Your task to perform on an android device: Play the last video I watched on Youtube Image 0: 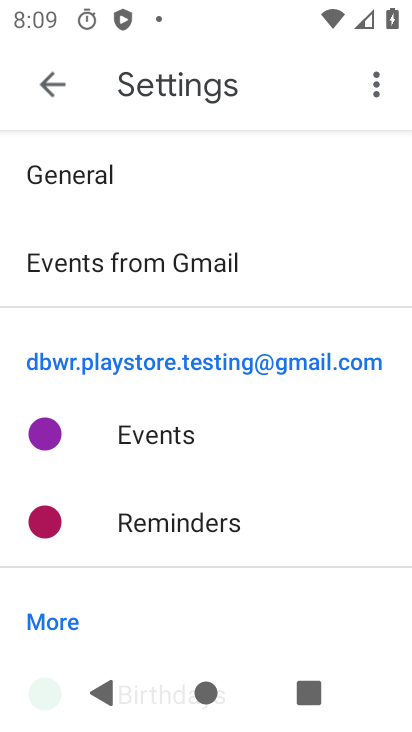
Step 0: press home button
Your task to perform on an android device: Play the last video I watched on Youtube Image 1: 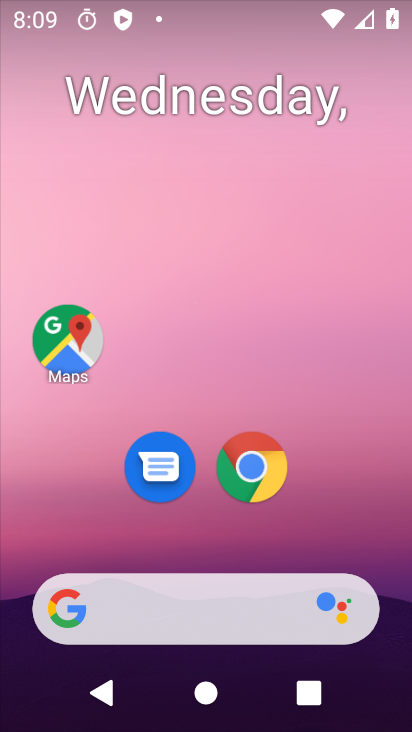
Step 1: drag from (369, 400) to (360, 115)
Your task to perform on an android device: Play the last video I watched on Youtube Image 2: 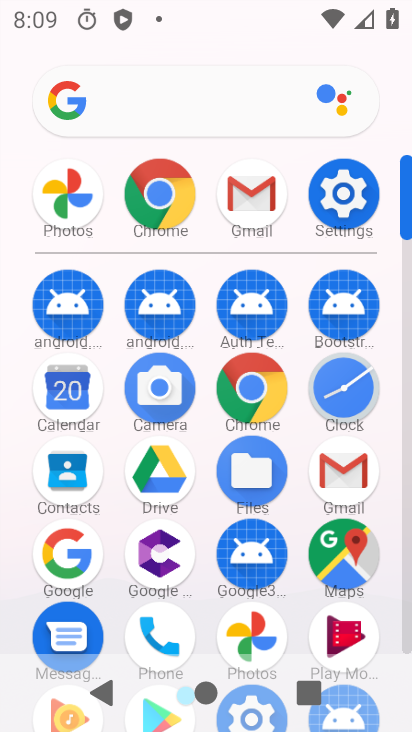
Step 2: drag from (393, 614) to (397, 305)
Your task to perform on an android device: Play the last video I watched on Youtube Image 3: 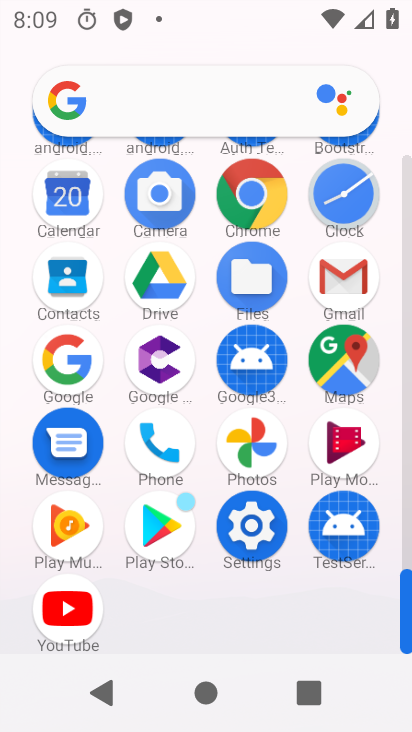
Step 3: click (58, 612)
Your task to perform on an android device: Play the last video I watched on Youtube Image 4: 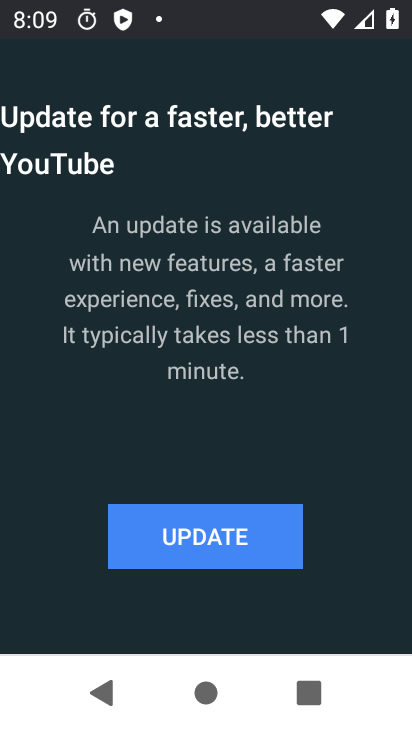
Step 4: click (218, 525)
Your task to perform on an android device: Play the last video I watched on Youtube Image 5: 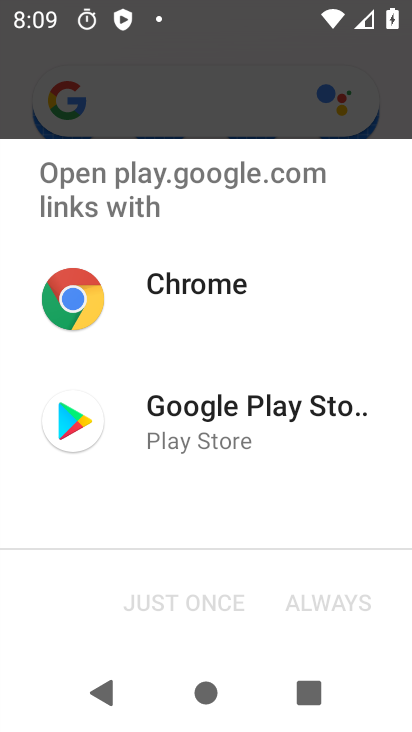
Step 5: click (164, 418)
Your task to perform on an android device: Play the last video I watched on Youtube Image 6: 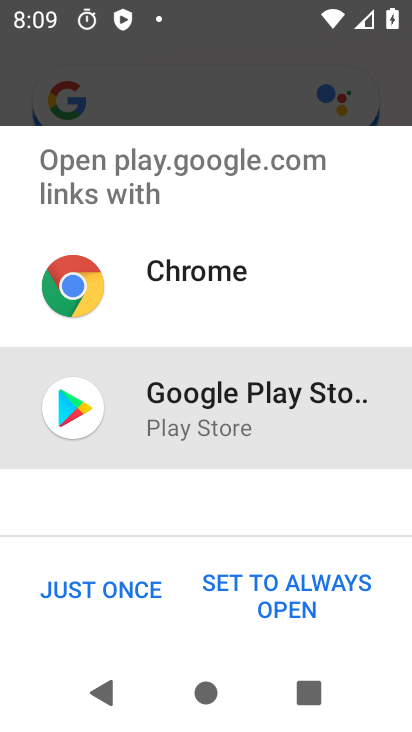
Step 6: click (112, 590)
Your task to perform on an android device: Play the last video I watched on Youtube Image 7: 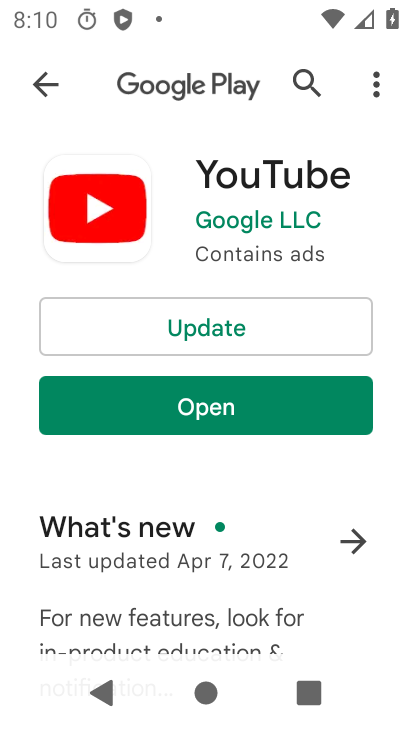
Step 7: click (203, 332)
Your task to perform on an android device: Play the last video I watched on Youtube Image 8: 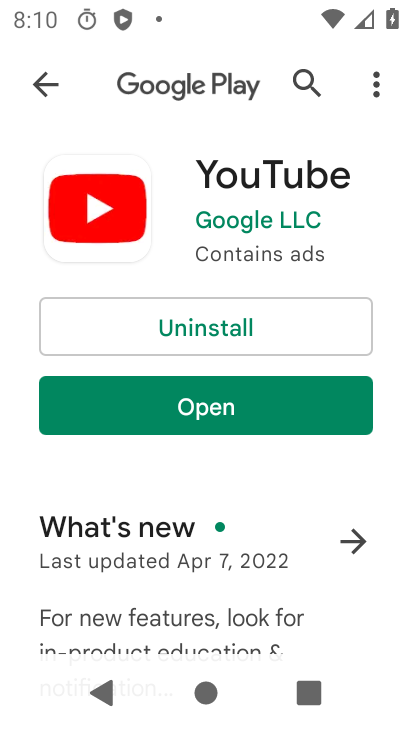
Step 8: click (196, 418)
Your task to perform on an android device: Play the last video I watched on Youtube Image 9: 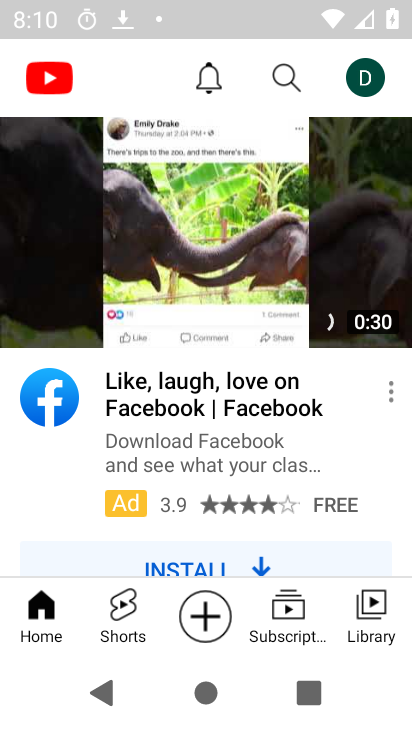
Step 9: click (363, 622)
Your task to perform on an android device: Play the last video I watched on Youtube Image 10: 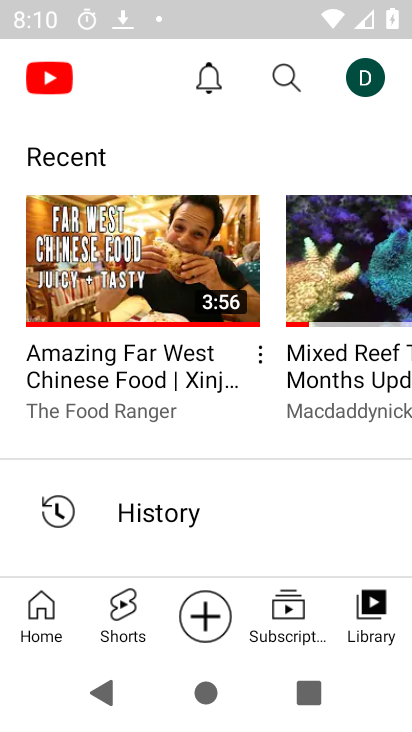
Step 10: click (150, 247)
Your task to perform on an android device: Play the last video I watched on Youtube Image 11: 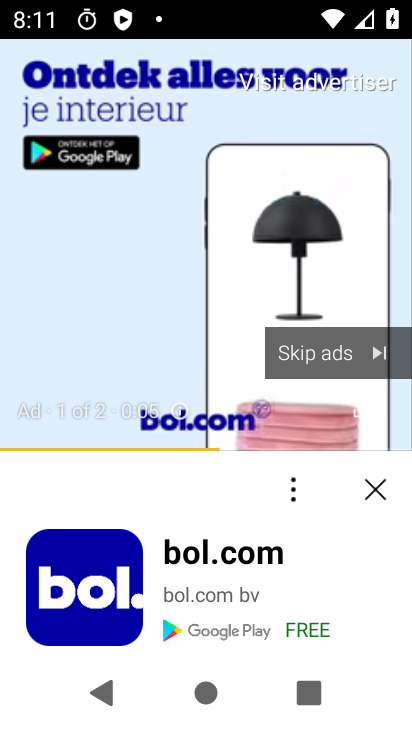
Step 11: click (316, 349)
Your task to perform on an android device: Play the last video I watched on Youtube Image 12: 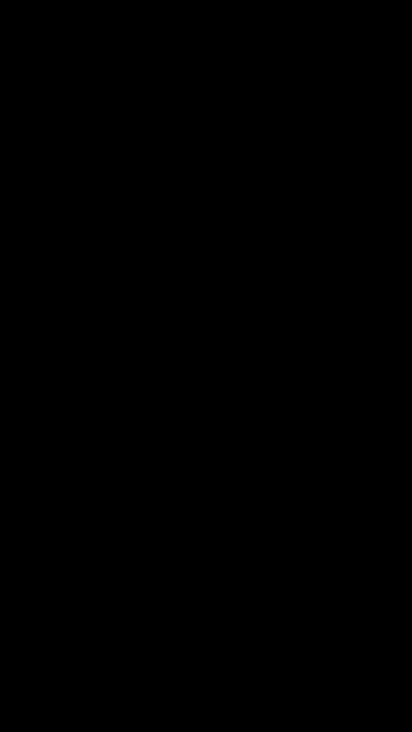
Step 12: task complete